Your task to perform on an android device: Go to location settings Image 0: 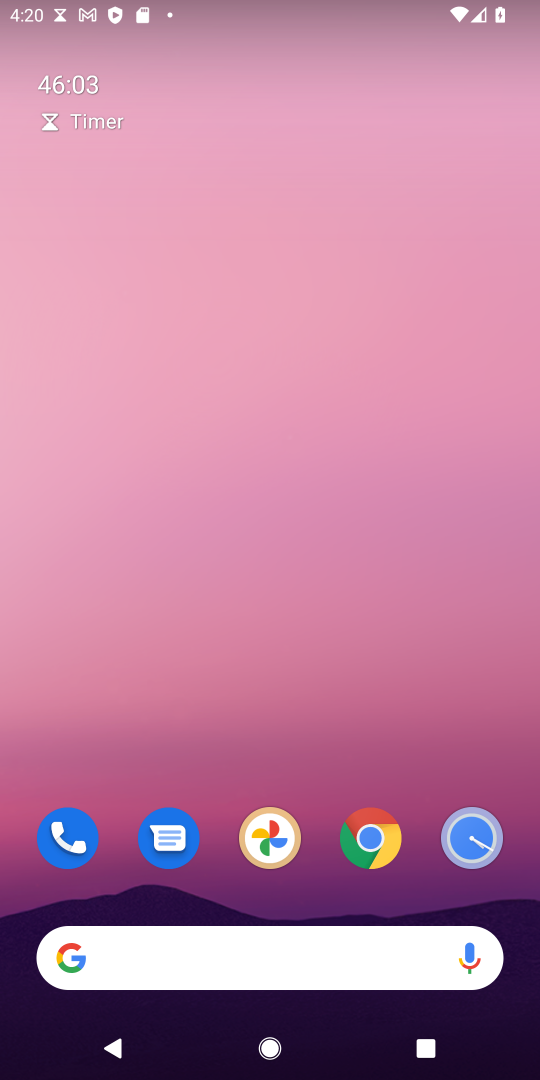
Step 0: drag from (326, 801) to (285, 95)
Your task to perform on an android device: Go to location settings Image 1: 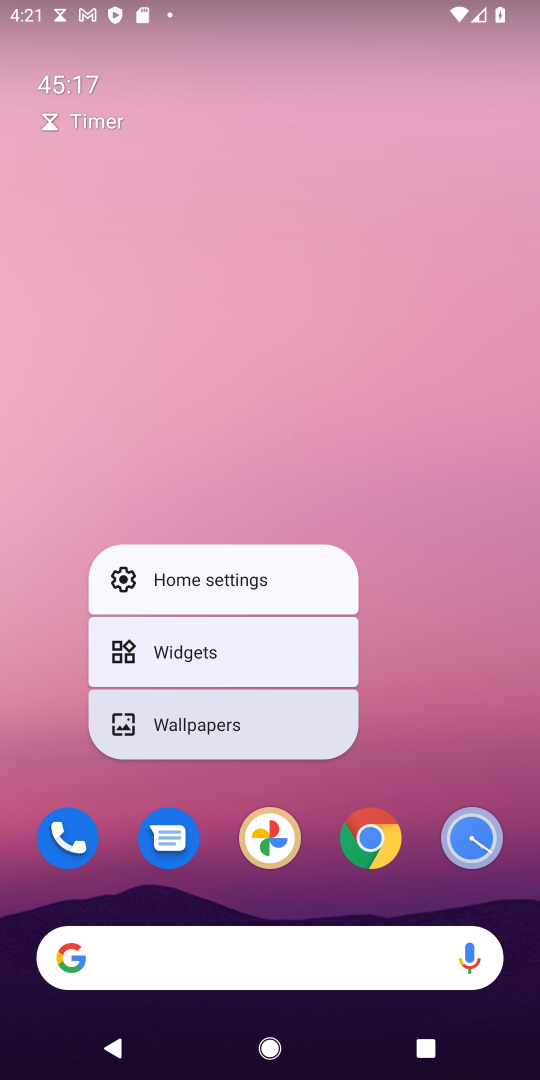
Step 1: drag from (533, 935) to (472, 313)
Your task to perform on an android device: Go to location settings Image 2: 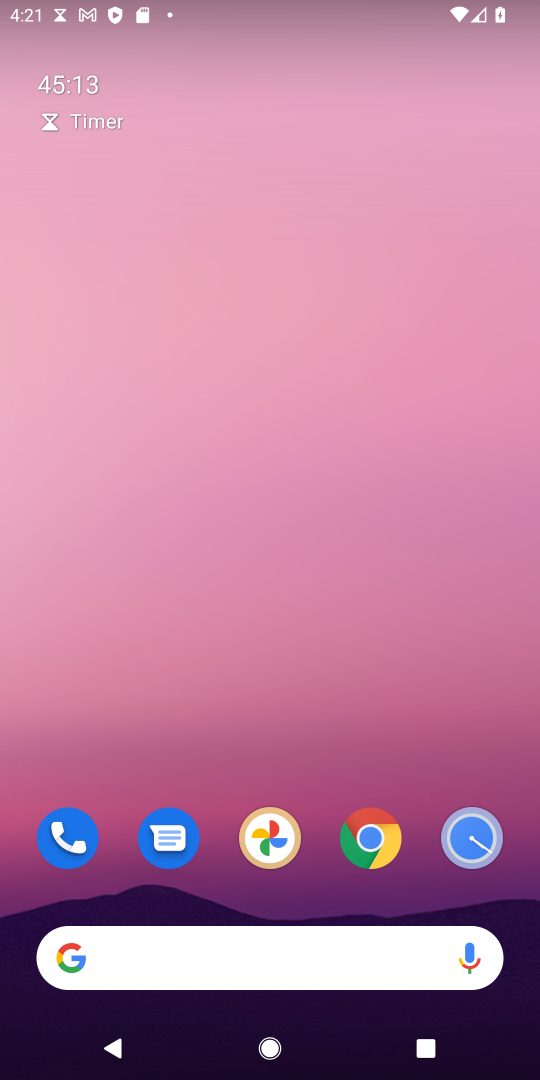
Step 2: drag from (427, 892) to (389, 131)
Your task to perform on an android device: Go to location settings Image 3: 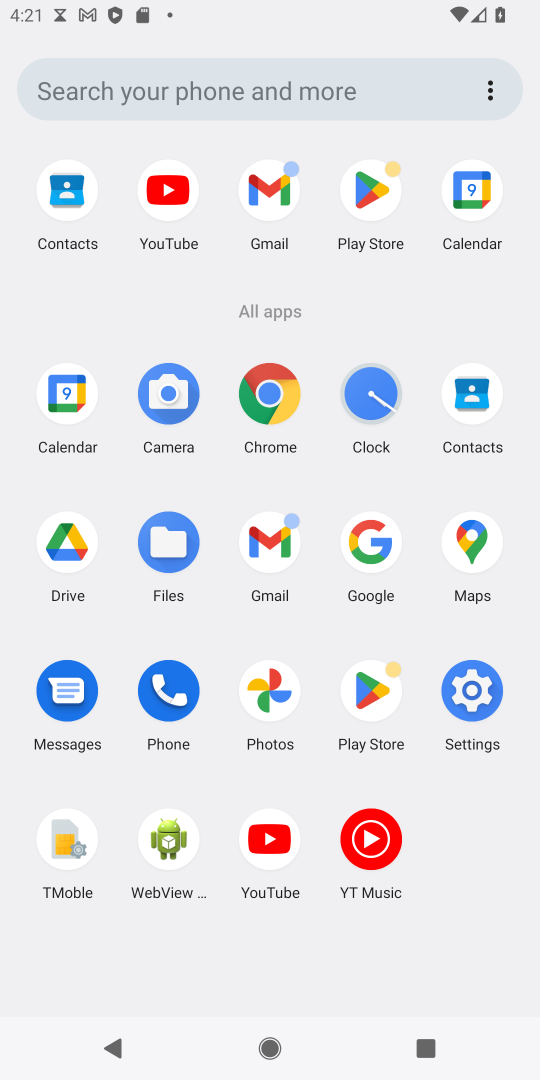
Step 3: click (471, 710)
Your task to perform on an android device: Go to location settings Image 4: 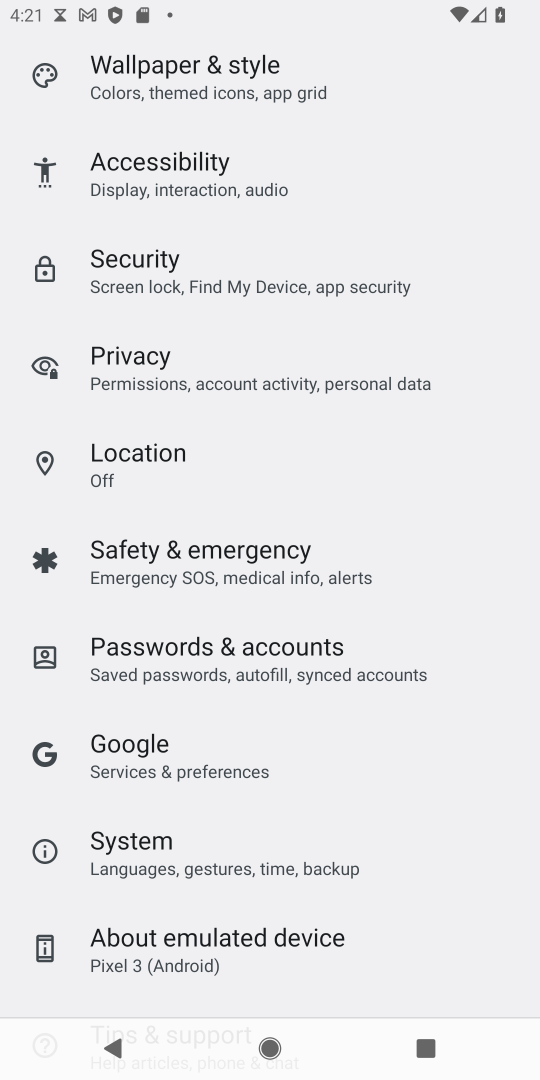
Step 4: click (280, 461)
Your task to perform on an android device: Go to location settings Image 5: 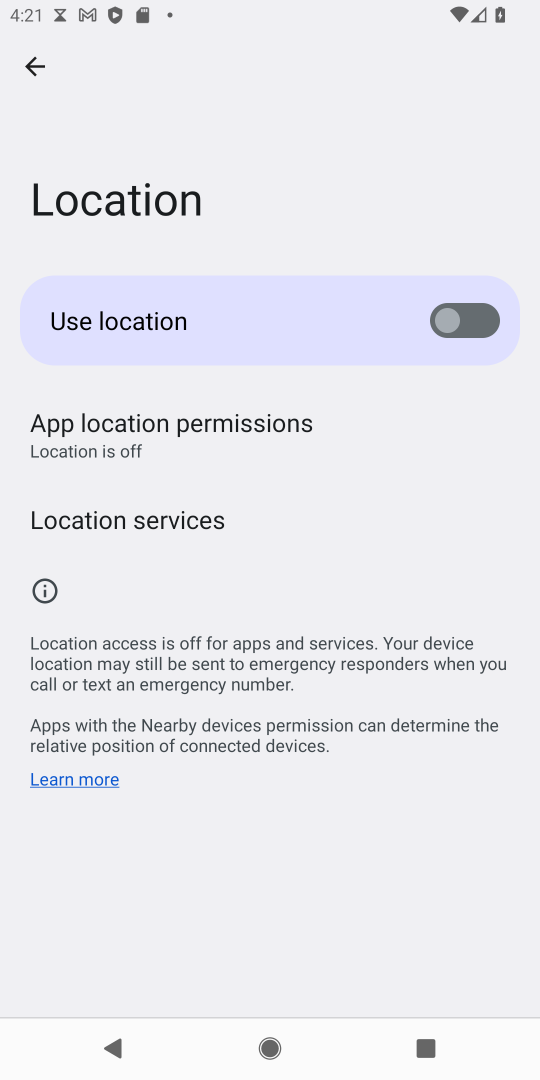
Step 5: task complete